Your task to perform on an android device: make emails show in primary in the gmail app Image 0: 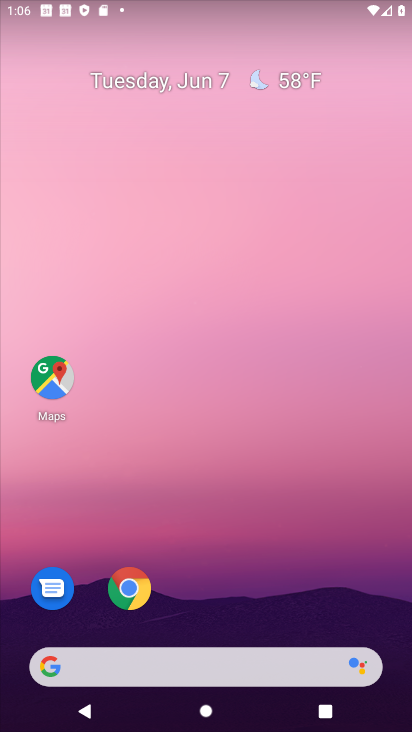
Step 0: drag from (318, 599) to (185, 138)
Your task to perform on an android device: make emails show in primary in the gmail app Image 1: 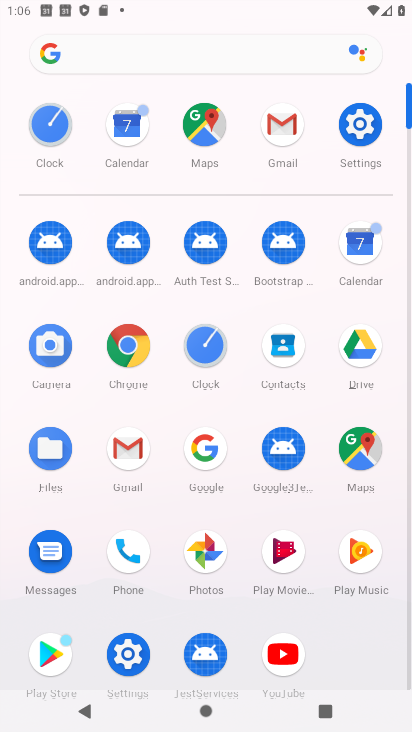
Step 1: click (282, 141)
Your task to perform on an android device: make emails show in primary in the gmail app Image 2: 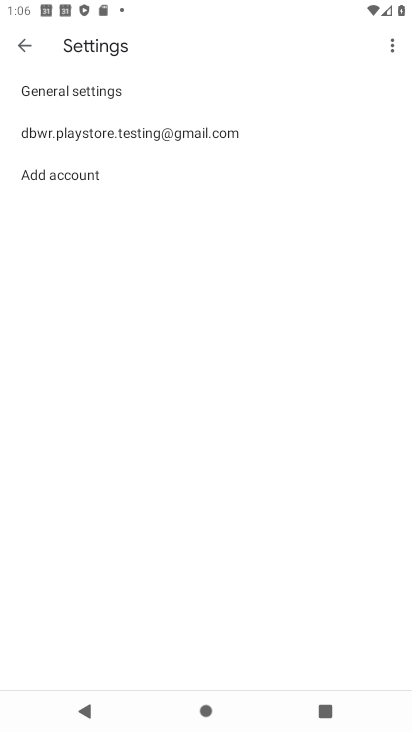
Step 2: task complete